Your task to perform on an android device: Open Reddit.com Image 0: 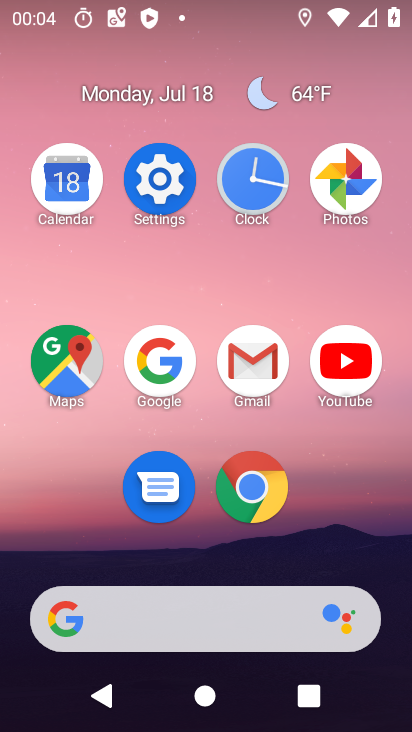
Step 0: click (292, 495)
Your task to perform on an android device: Open Reddit.com Image 1: 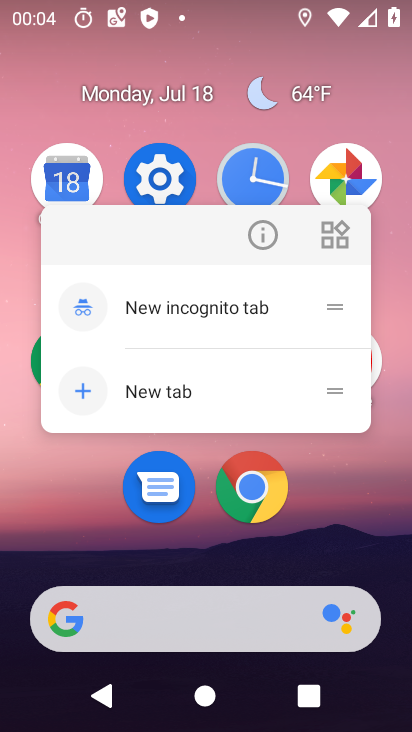
Step 1: click (273, 484)
Your task to perform on an android device: Open Reddit.com Image 2: 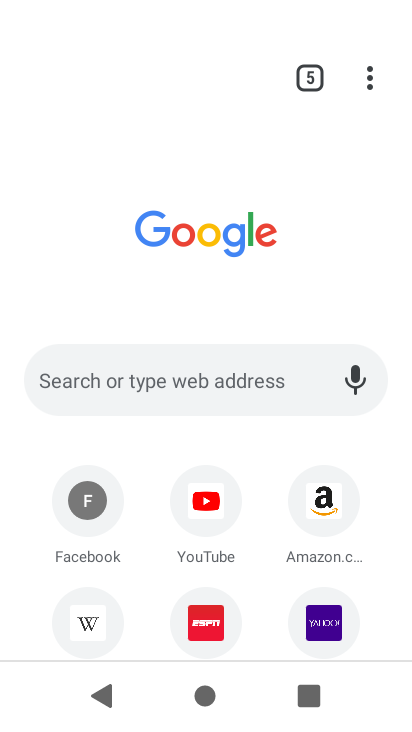
Step 2: click (204, 370)
Your task to perform on an android device: Open Reddit.com Image 3: 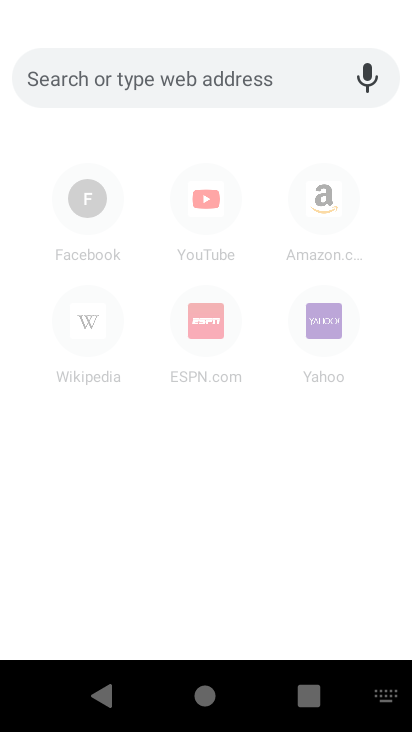
Step 3: type "reddit"
Your task to perform on an android device: Open Reddit.com Image 4: 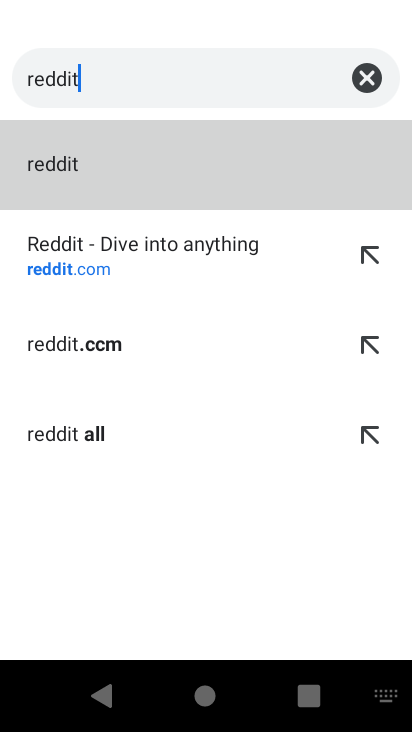
Step 4: click (63, 257)
Your task to perform on an android device: Open Reddit.com Image 5: 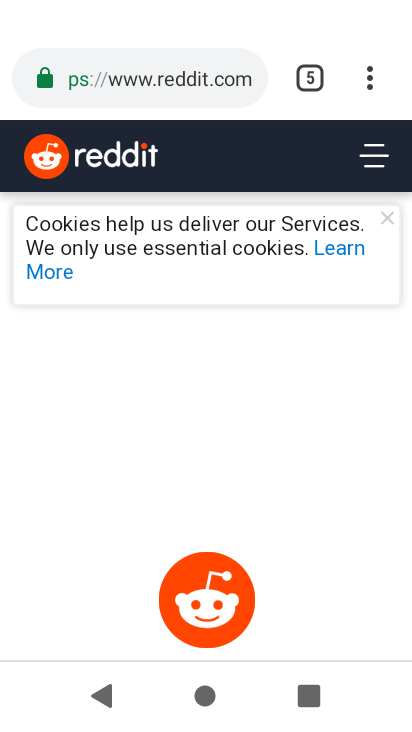
Step 5: task complete